Your task to perform on an android device: allow cookies in the chrome app Image 0: 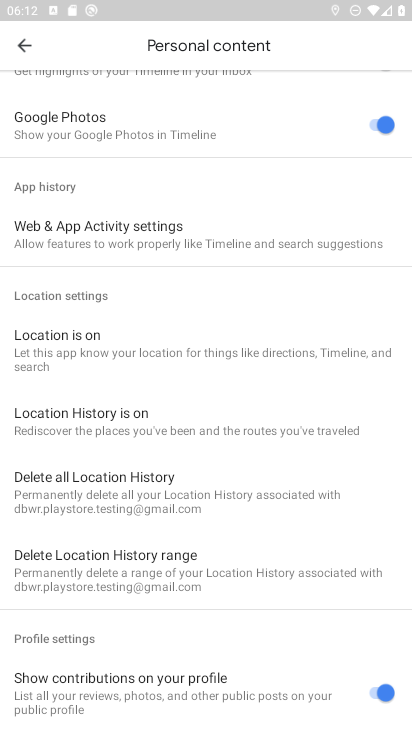
Step 0: press home button
Your task to perform on an android device: allow cookies in the chrome app Image 1: 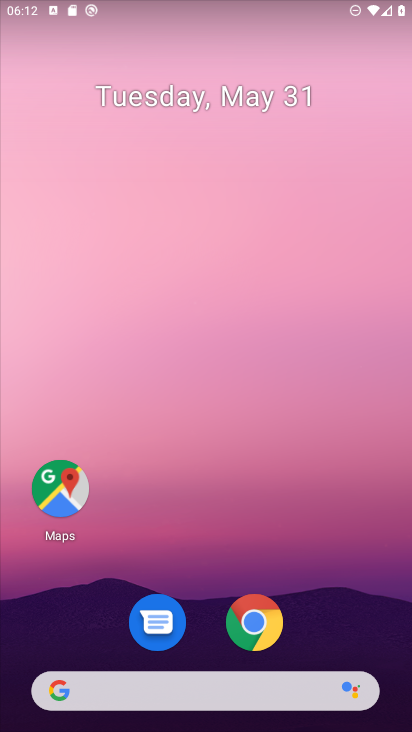
Step 1: drag from (322, 602) to (333, 29)
Your task to perform on an android device: allow cookies in the chrome app Image 2: 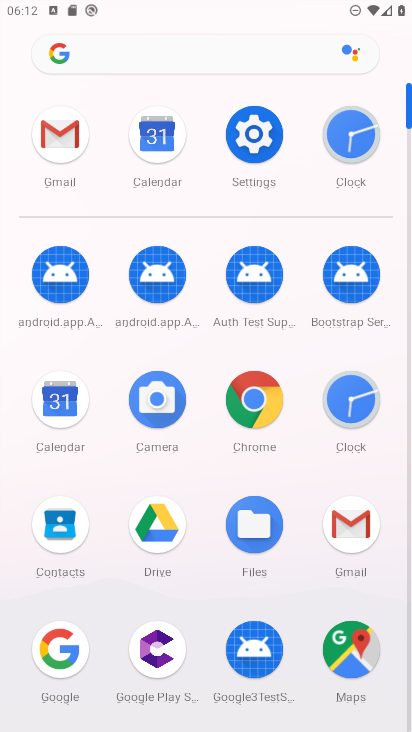
Step 2: click (269, 448)
Your task to perform on an android device: allow cookies in the chrome app Image 3: 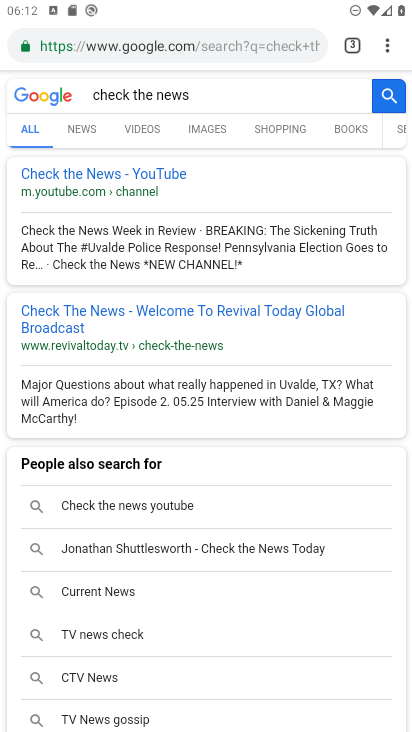
Step 3: drag from (389, 47) to (276, 500)
Your task to perform on an android device: allow cookies in the chrome app Image 4: 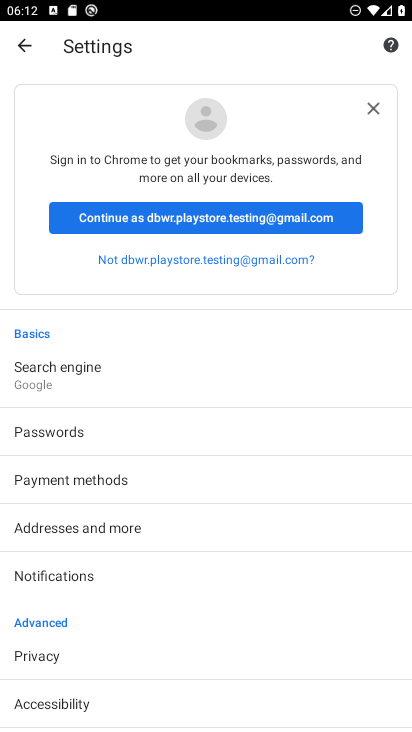
Step 4: drag from (164, 699) to (166, 239)
Your task to perform on an android device: allow cookies in the chrome app Image 5: 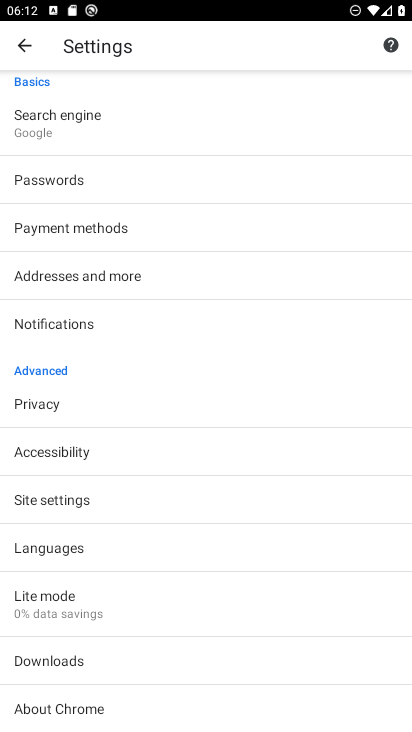
Step 5: click (32, 418)
Your task to perform on an android device: allow cookies in the chrome app Image 6: 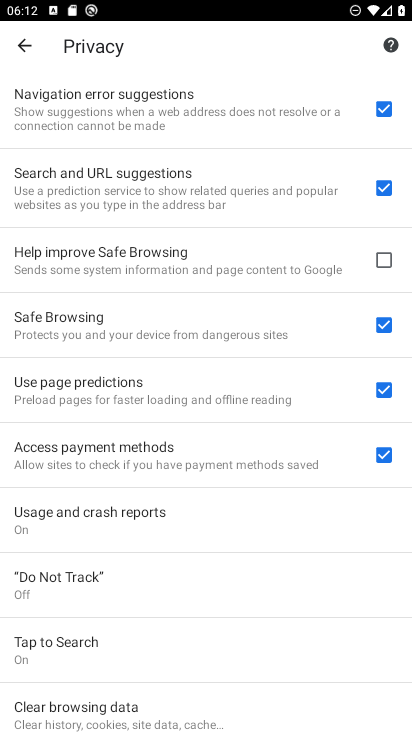
Step 6: press back button
Your task to perform on an android device: allow cookies in the chrome app Image 7: 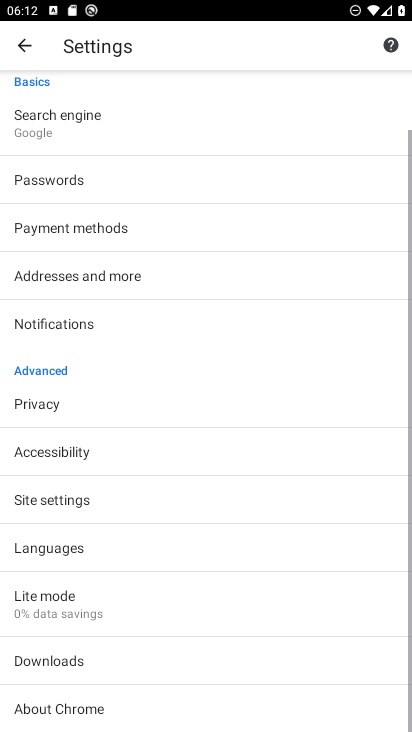
Step 7: click (101, 502)
Your task to perform on an android device: allow cookies in the chrome app Image 8: 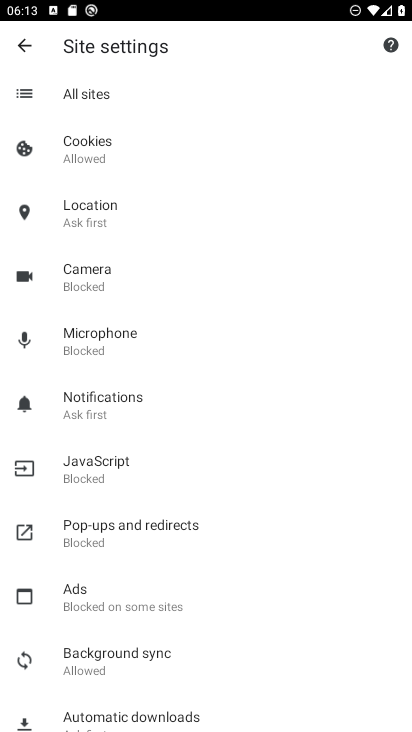
Step 8: task complete